Your task to perform on an android device: turn on the 12-hour format for clock Image 0: 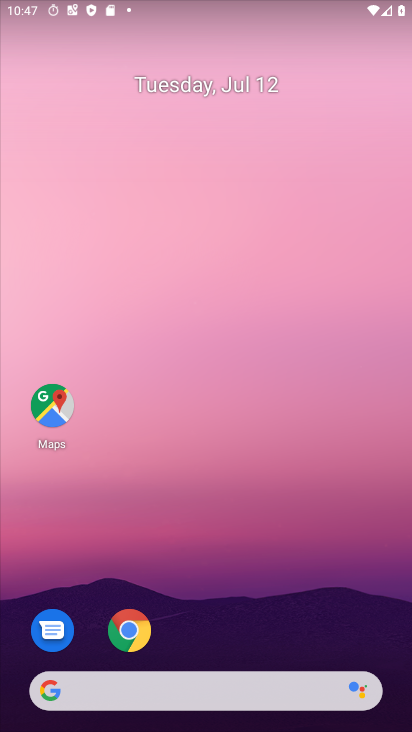
Step 0: drag from (274, 600) to (268, 133)
Your task to perform on an android device: turn on the 12-hour format for clock Image 1: 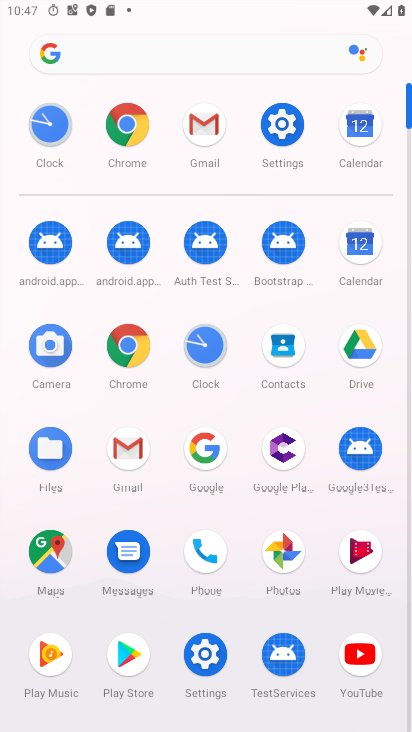
Step 1: click (202, 351)
Your task to perform on an android device: turn on the 12-hour format for clock Image 2: 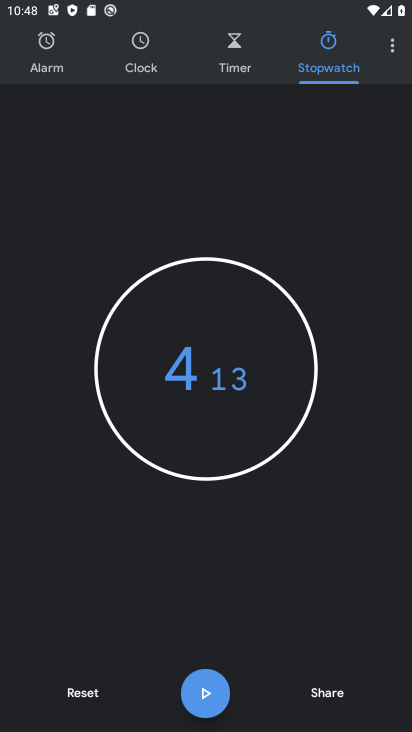
Step 2: click (386, 44)
Your task to perform on an android device: turn on the 12-hour format for clock Image 3: 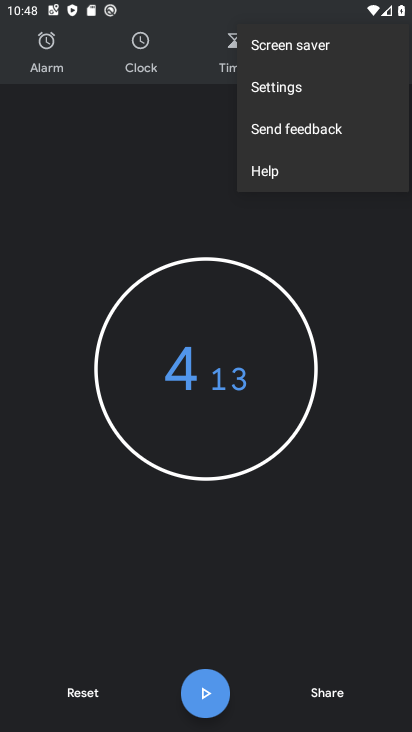
Step 3: click (315, 87)
Your task to perform on an android device: turn on the 12-hour format for clock Image 4: 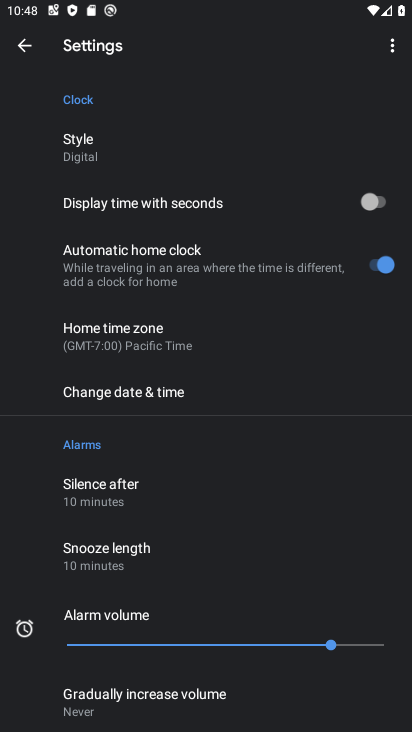
Step 4: click (136, 395)
Your task to perform on an android device: turn on the 12-hour format for clock Image 5: 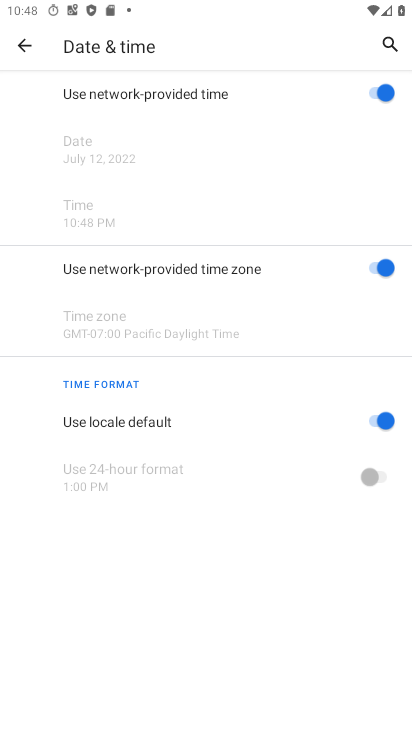
Step 5: task complete